Your task to perform on an android device: Open Google Chrome and open the bookmarks view Image 0: 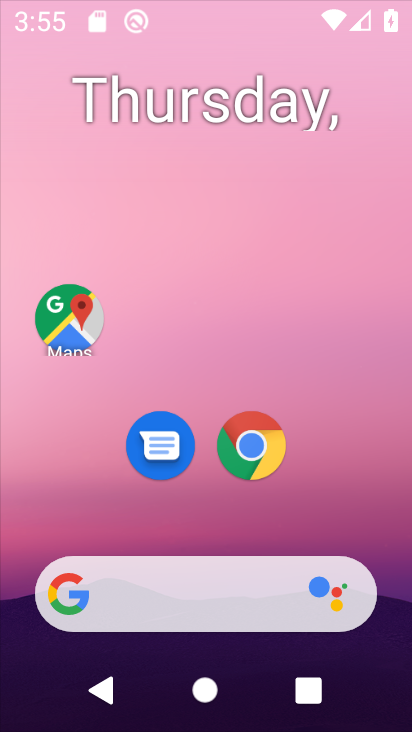
Step 0: click (397, 89)
Your task to perform on an android device: Open Google Chrome and open the bookmarks view Image 1: 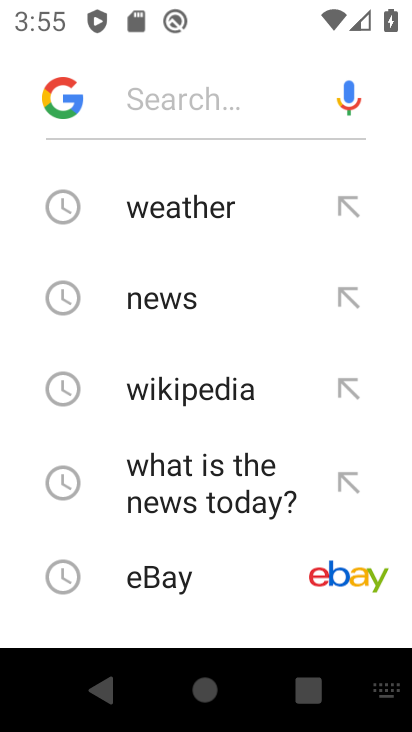
Step 1: drag from (230, 229) to (197, 588)
Your task to perform on an android device: Open Google Chrome and open the bookmarks view Image 2: 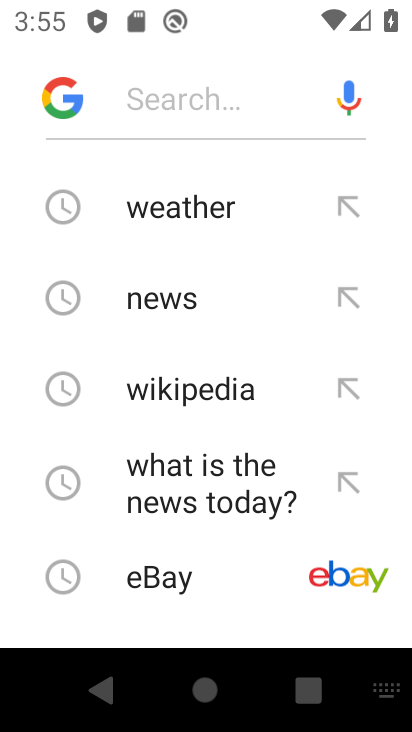
Step 2: drag from (280, 191) to (197, 517)
Your task to perform on an android device: Open Google Chrome and open the bookmarks view Image 3: 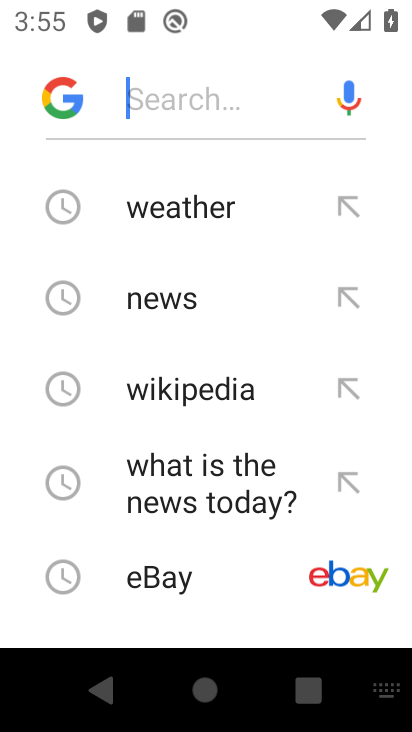
Step 3: click (124, 714)
Your task to perform on an android device: Open Google Chrome and open the bookmarks view Image 4: 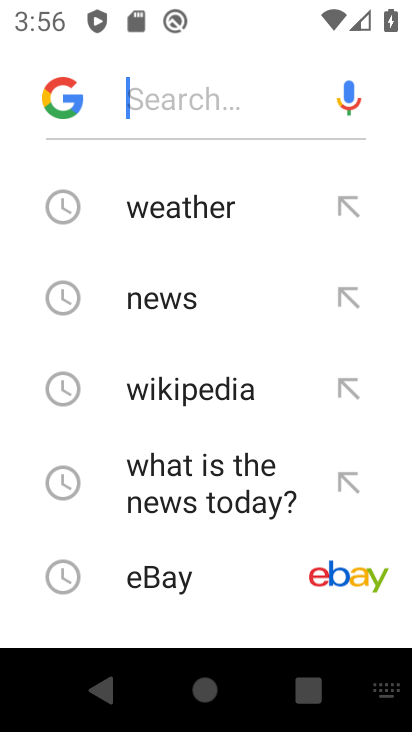
Step 4: press back button
Your task to perform on an android device: Open Google Chrome and open the bookmarks view Image 5: 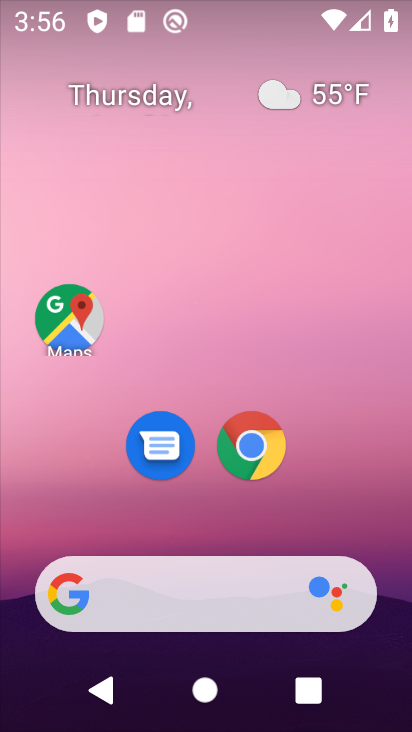
Step 5: drag from (287, 516) to (387, 47)
Your task to perform on an android device: Open Google Chrome and open the bookmarks view Image 6: 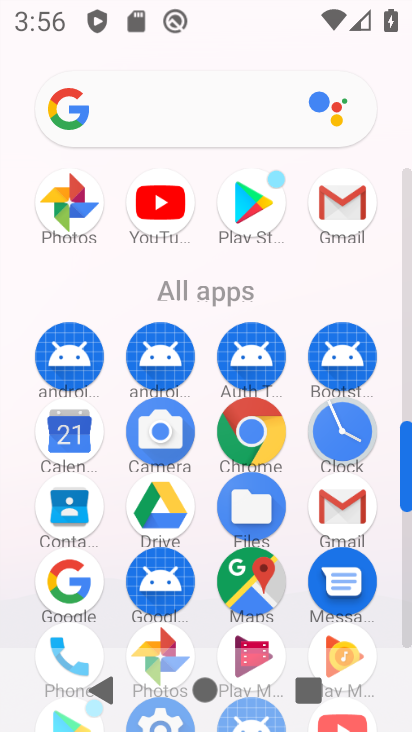
Step 6: drag from (393, 515) to (410, 98)
Your task to perform on an android device: Open Google Chrome and open the bookmarks view Image 7: 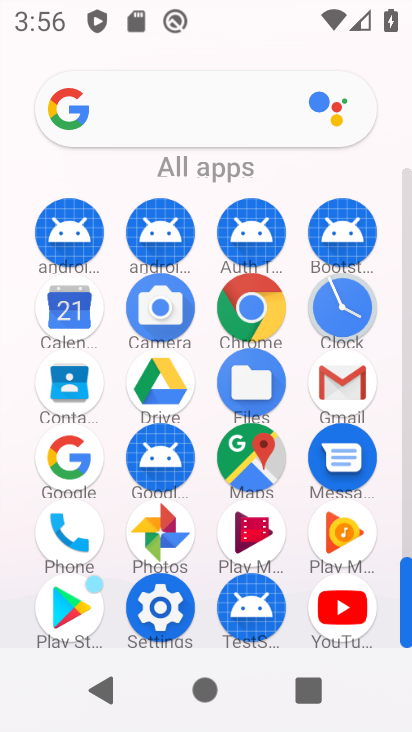
Step 7: click (269, 312)
Your task to perform on an android device: Open Google Chrome and open the bookmarks view Image 8: 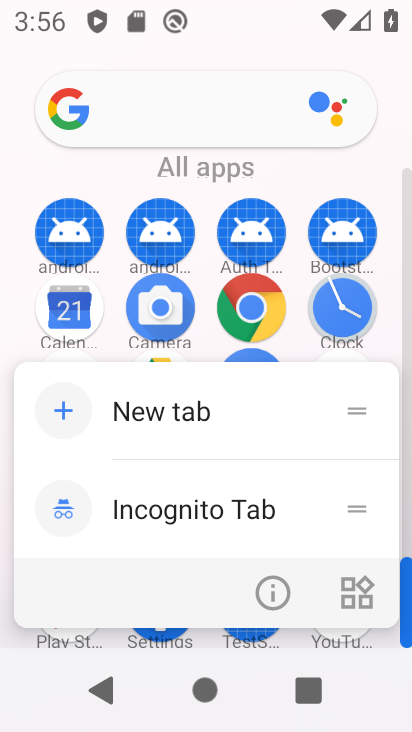
Step 8: click (269, 312)
Your task to perform on an android device: Open Google Chrome and open the bookmarks view Image 9: 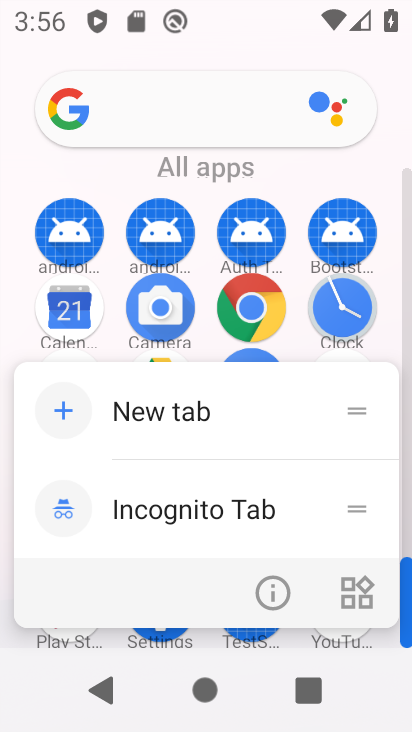
Step 9: click (269, 310)
Your task to perform on an android device: Open Google Chrome and open the bookmarks view Image 10: 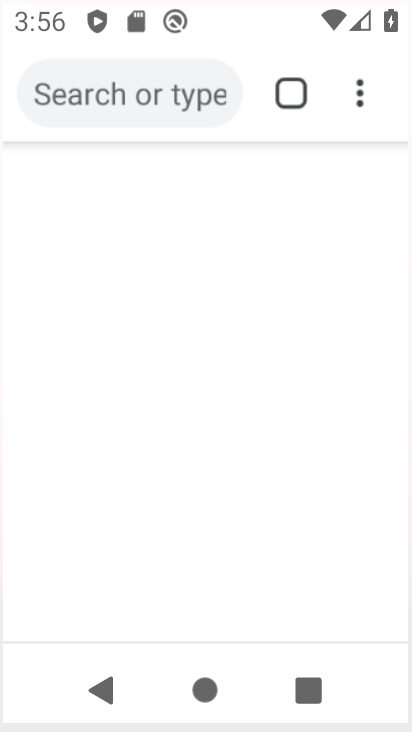
Step 10: click (269, 312)
Your task to perform on an android device: Open Google Chrome and open the bookmarks view Image 11: 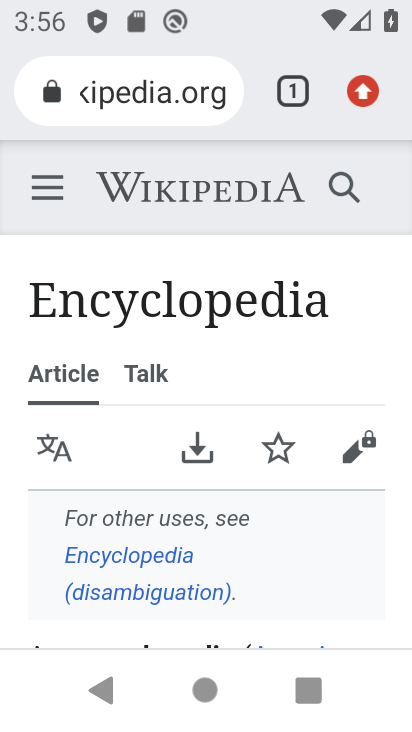
Step 11: click (371, 93)
Your task to perform on an android device: Open Google Chrome and open the bookmarks view Image 12: 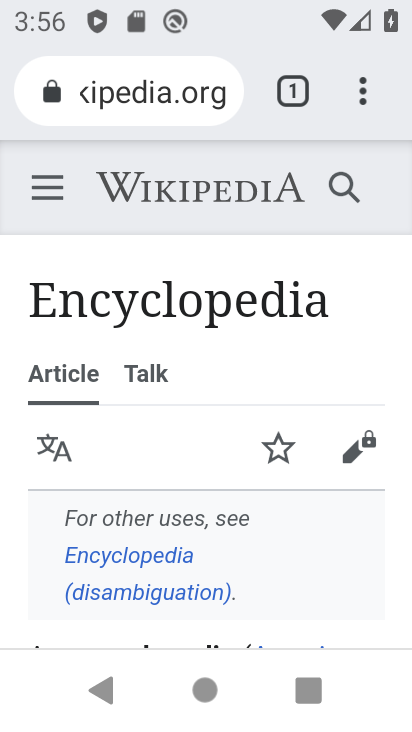
Step 12: task complete